Your task to perform on an android device: Open Youtube and go to "Your channel" Image 0: 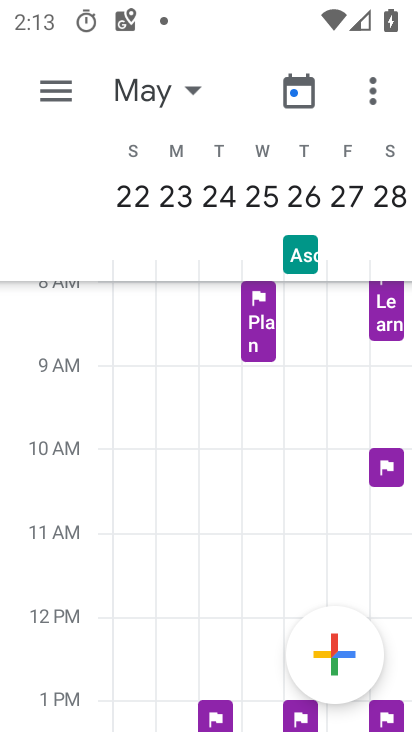
Step 0: press home button
Your task to perform on an android device: Open Youtube and go to "Your channel" Image 1: 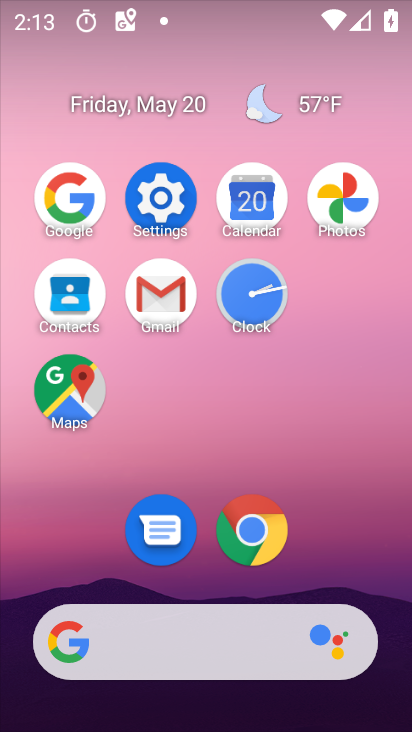
Step 1: drag from (329, 546) to (301, 117)
Your task to perform on an android device: Open Youtube and go to "Your channel" Image 2: 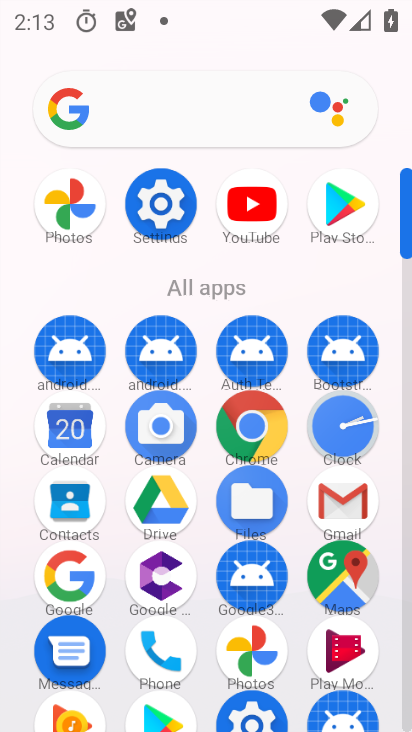
Step 2: click (246, 195)
Your task to perform on an android device: Open Youtube and go to "Your channel" Image 3: 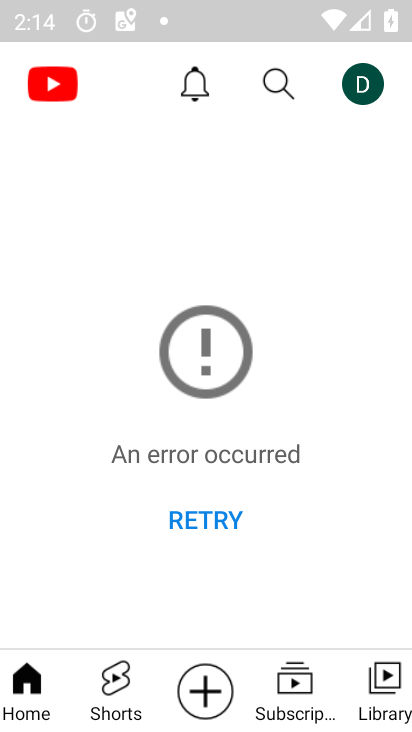
Step 3: click (372, 78)
Your task to perform on an android device: Open Youtube and go to "Your channel" Image 4: 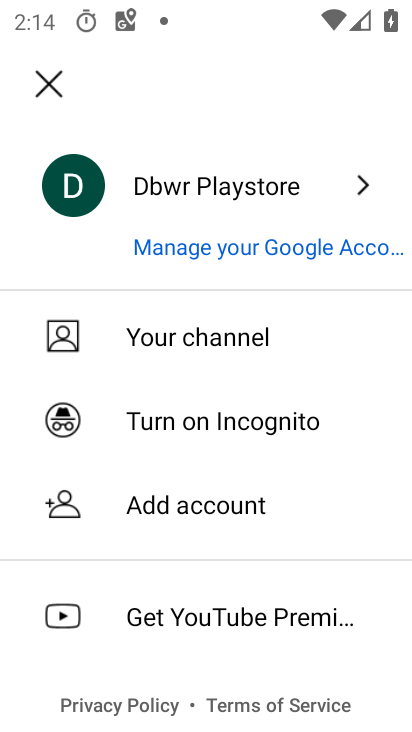
Step 4: click (221, 349)
Your task to perform on an android device: Open Youtube and go to "Your channel" Image 5: 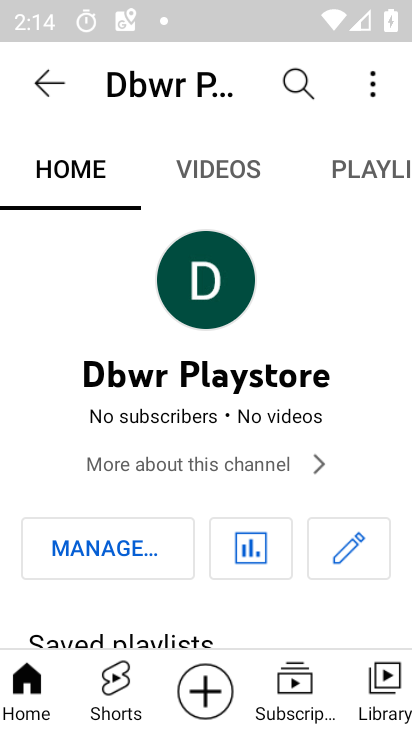
Step 5: task complete